Your task to perform on an android device: turn on location history Image 0: 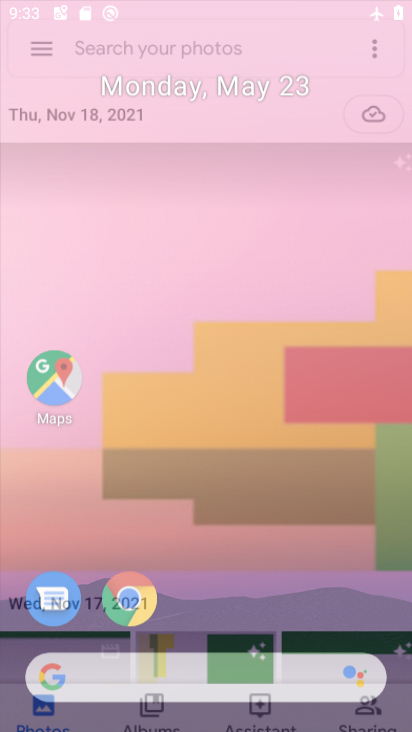
Step 0: click (132, 607)
Your task to perform on an android device: turn on location history Image 1: 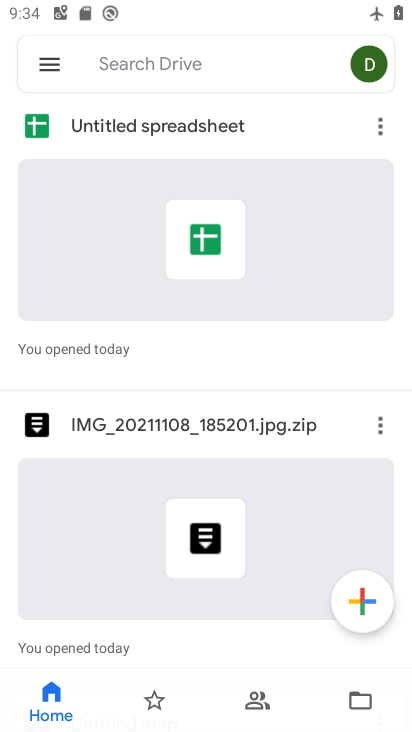
Step 1: press home button
Your task to perform on an android device: turn on location history Image 2: 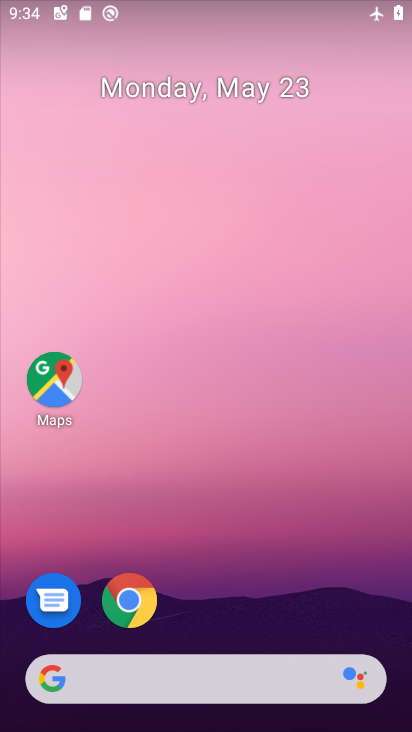
Step 2: drag from (211, 721) to (217, 116)
Your task to perform on an android device: turn on location history Image 3: 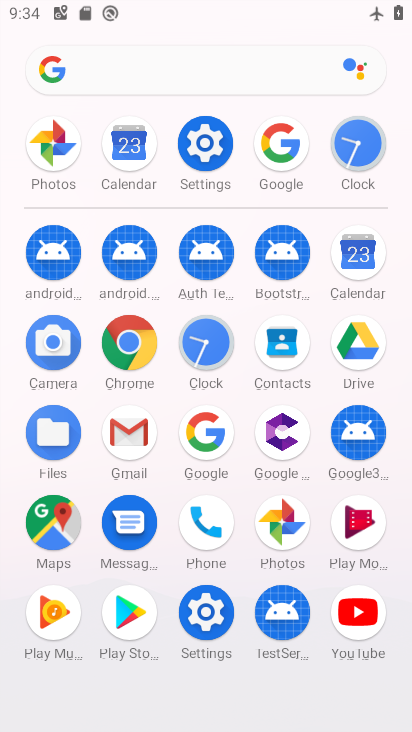
Step 3: click (208, 141)
Your task to perform on an android device: turn on location history Image 4: 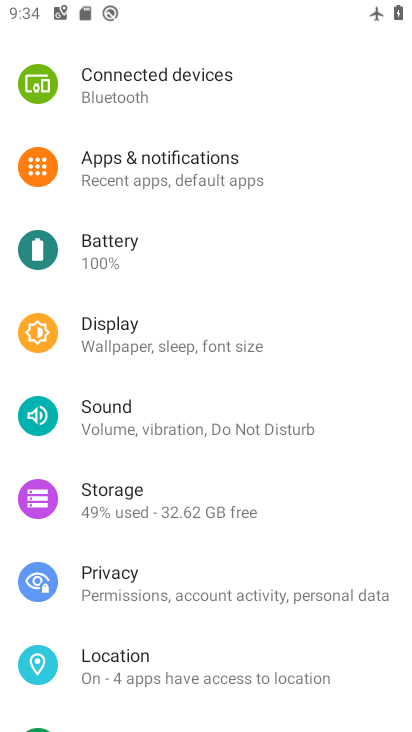
Step 4: click (122, 656)
Your task to perform on an android device: turn on location history Image 5: 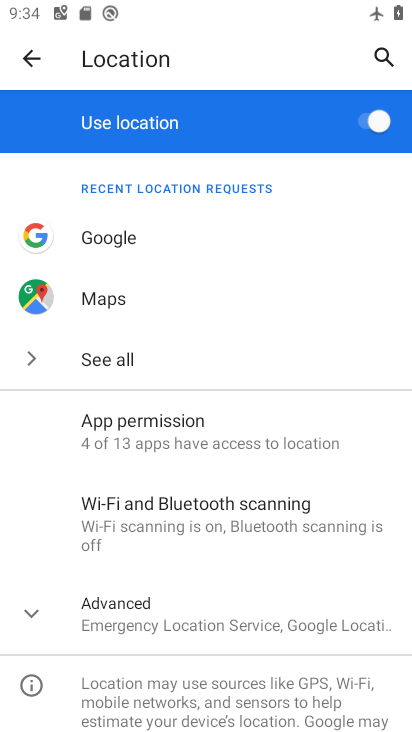
Step 5: click (160, 619)
Your task to perform on an android device: turn on location history Image 6: 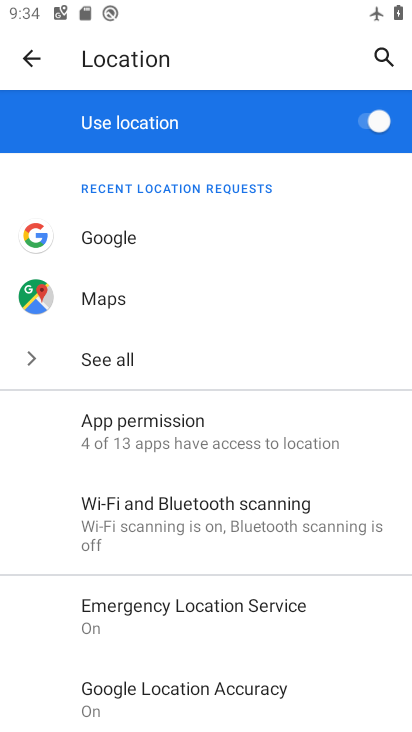
Step 6: drag from (342, 701) to (337, 407)
Your task to perform on an android device: turn on location history Image 7: 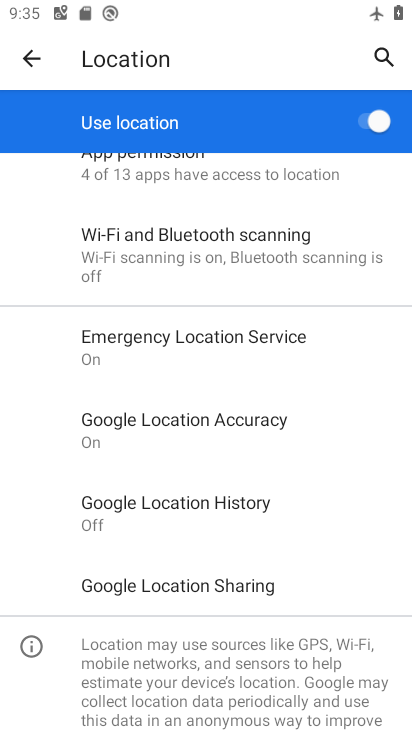
Step 7: click (193, 500)
Your task to perform on an android device: turn on location history Image 8: 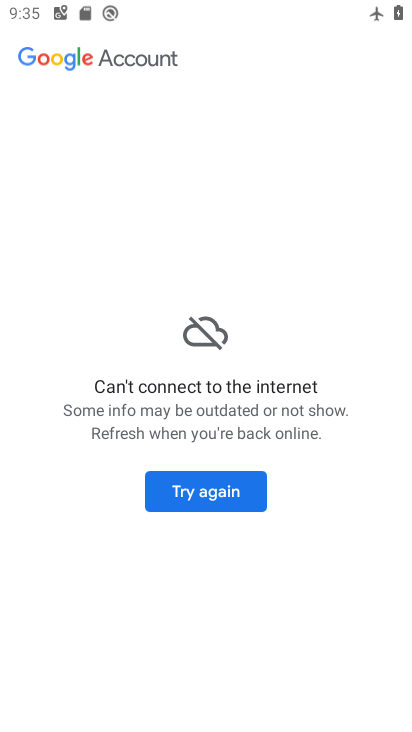
Step 8: task complete